Your task to perform on an android device: find which apps use the phone's location Image 0: 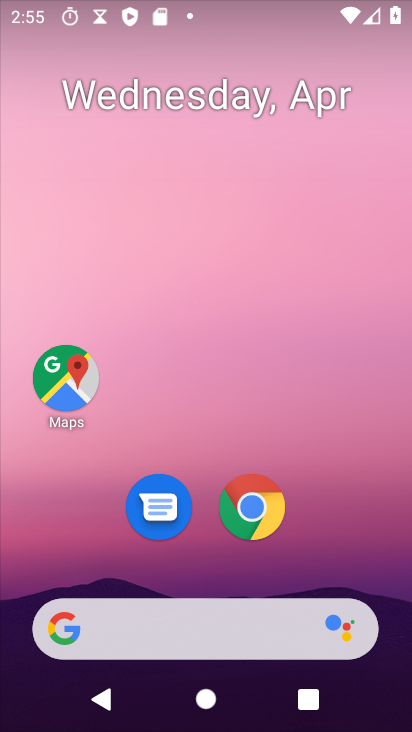
Step 0: drag from (328, 493) to (79, 91)
Your task to perform on an android device: find which apps use the phone's location Image 1: 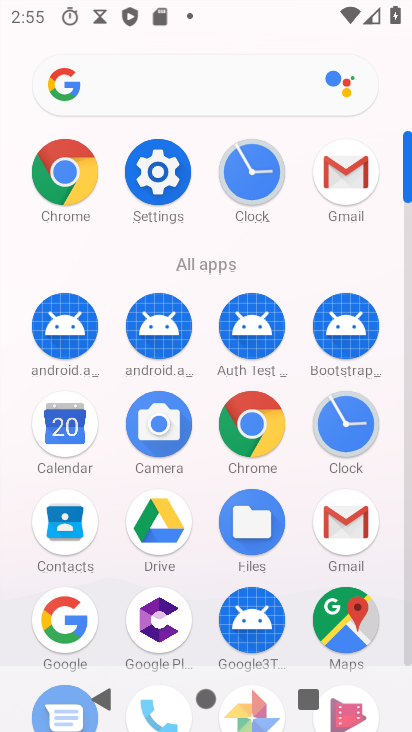
Step 1: click (158, 168)
Your task to perform on an android device: find which apps use the phone's location Image 2: 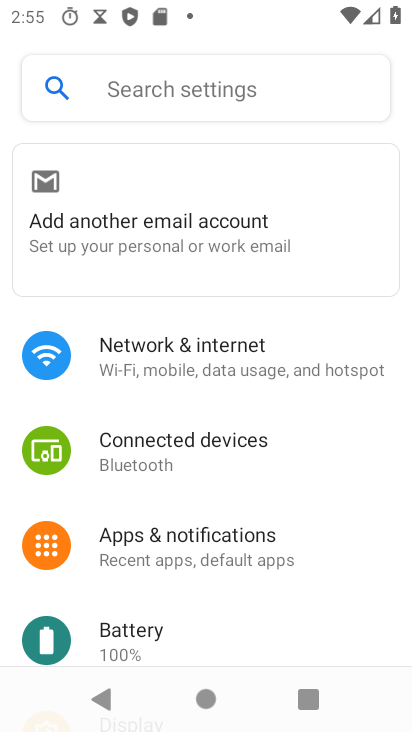
Step 2: drag from (130, 618) to (138, 197)
Your task to perform on an android device: find which apps use the phone's location Image 3: 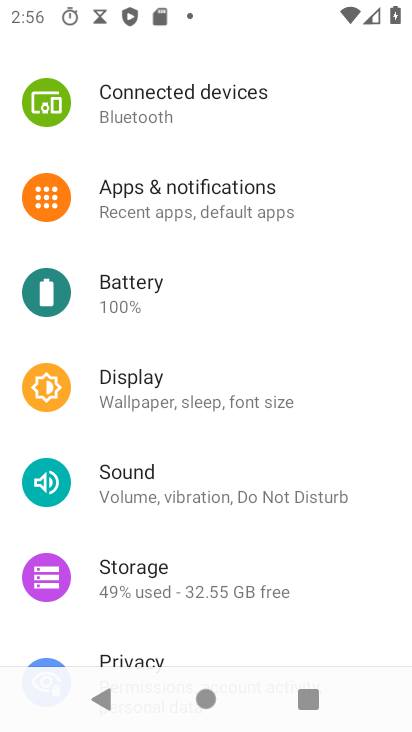
Step 3: drag from (141, 631) to (167, 206)
Your task to perform on an android device: find which apps use the phone's location Image 4: 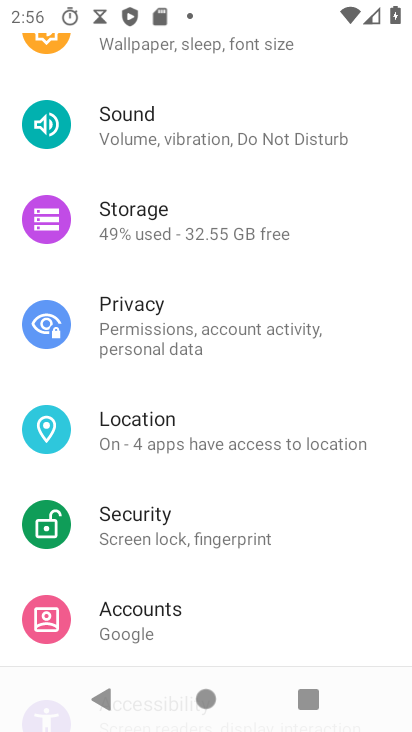
Step 4: click (202, 431)
Your task to perform on an android device: find which apps use the phone's location Image 5: 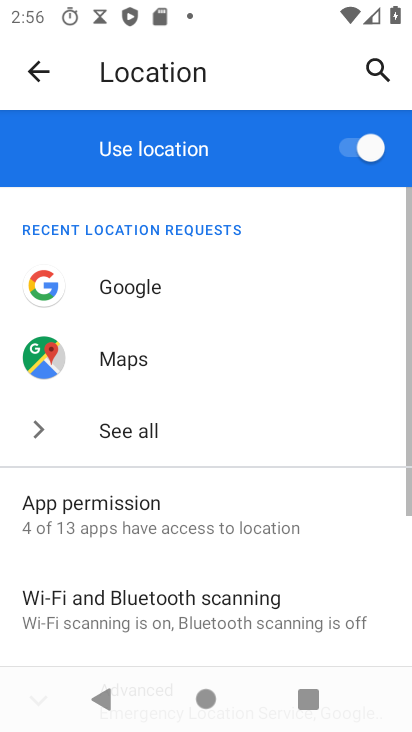
Step 5: click (127, 510)
Your task to perform on an android device: find which apps use the phone's location Image 6: 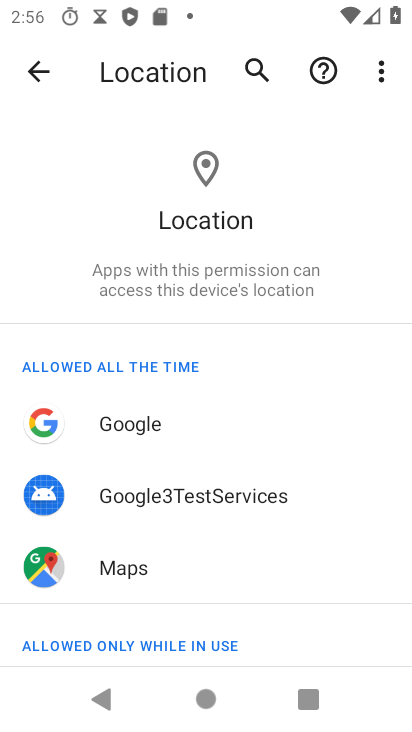
Step 6: task complete